Your task to perform on an android device: Open network settings Image 0: 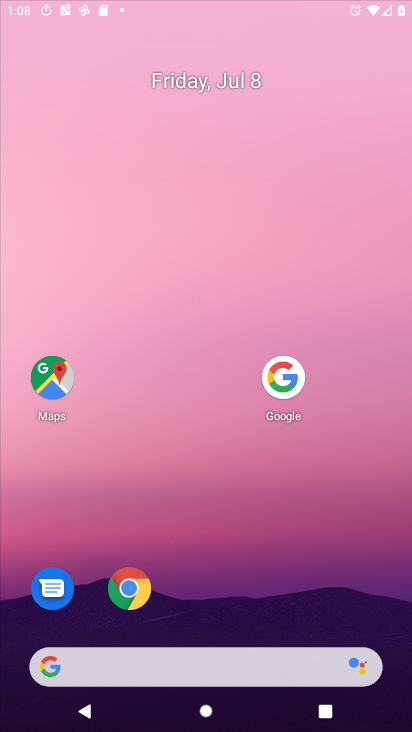
Step 0: press home button
Your task to perform on an android device: Open network settings Image 1: 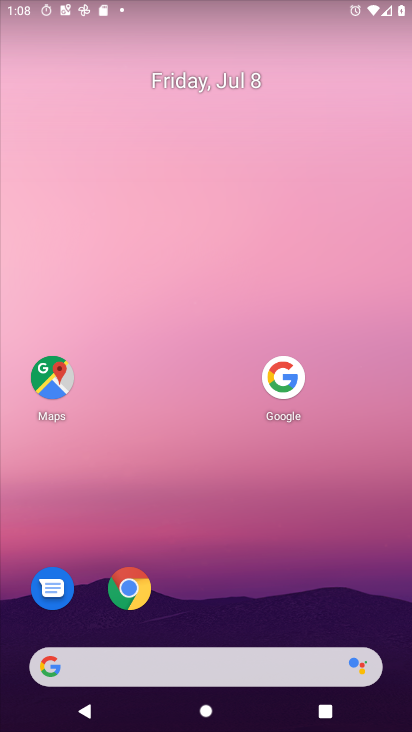
Step 1: drag from (208, 657) to (351, 62)
Your task to perform on an android device: Open network settings Image 2: 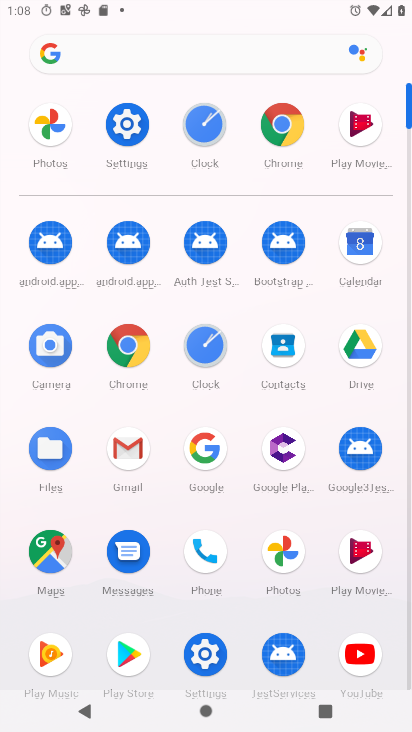
Step 2: click (115, 130)
Your task to perform on an android device: Open network settings Image 3: 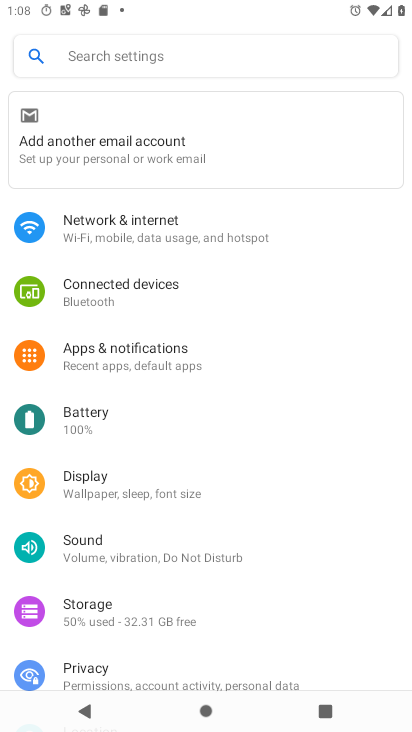
Step 3: click (171, 222)
Your task to perform on an android device: Open network settings Image 4: 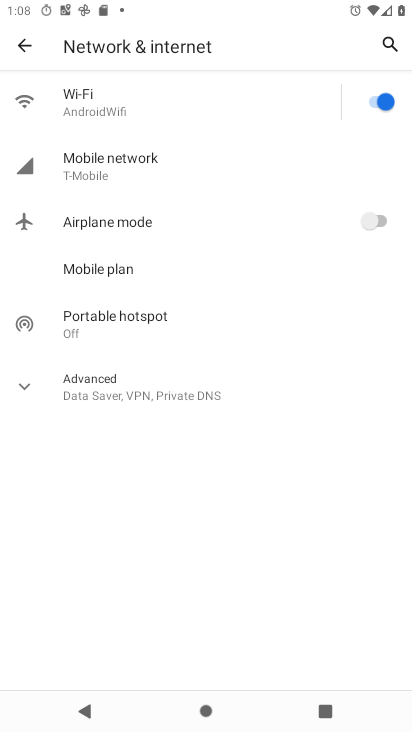
Step 4: click (128, 156)
Your task to perform on an android device: Open network settings Image 5: 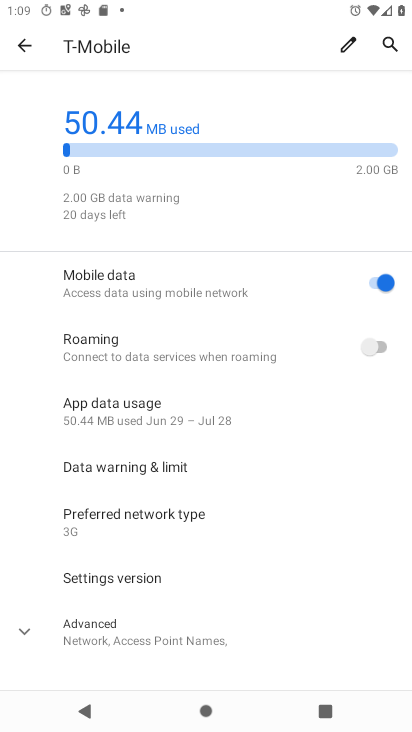
Step 5: task complete